Your task to perform on an android device: See recent photos Image 0: 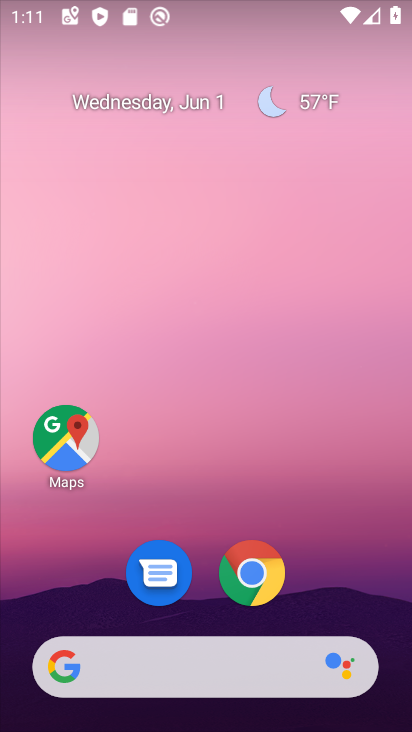
Step 0: drag from (192, 624) to (244, 190)
Your task to perform on an android device: See recent photos Image 1: 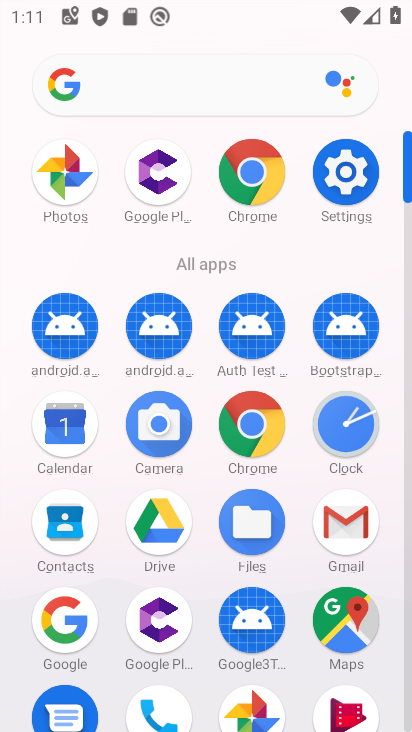
Step 1: drag from (196, 671) to (210, 190)
Your task to perform on an android device: See recent photos Image 2: 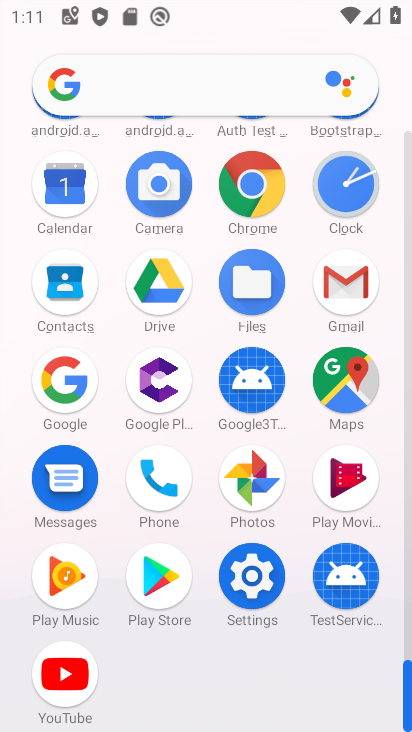
Step 2: click (260, 467)
Your task to perform on an android device: See recent photos Image 3: 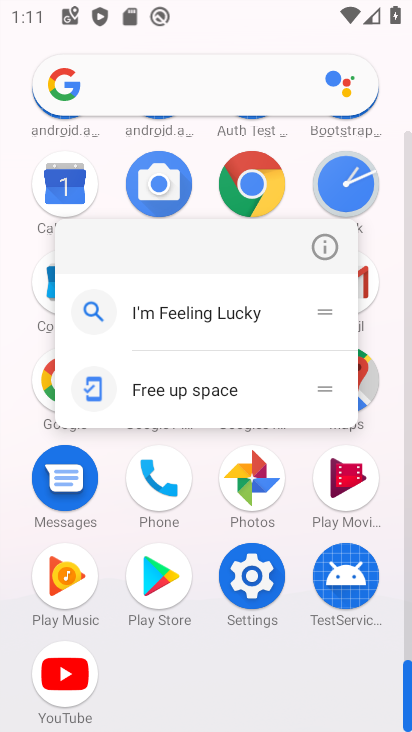
Step 3: click (334, 242)
Your task to perform on an android device: See recent photos Image 4: 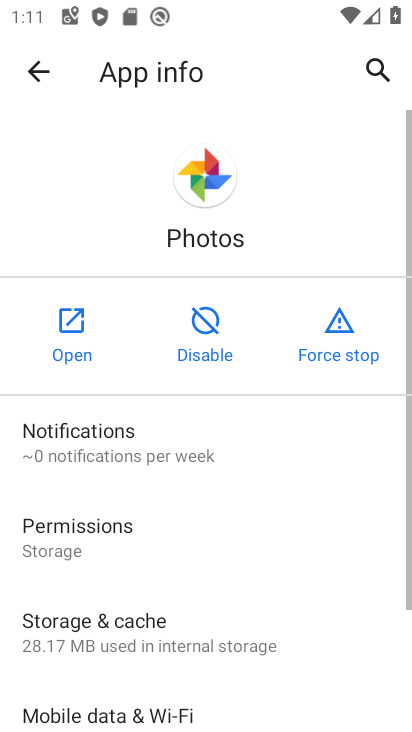
Step 4: click (47, 347)
Your task to perform on an android device: See recent photos Image 5: 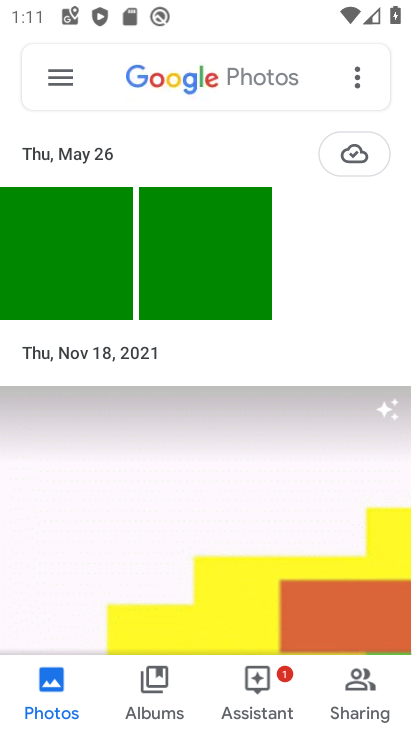
Step 5: drag from (189, 573) to (233, 0)
Your task to perform on an android device: See recent photos Image 6: 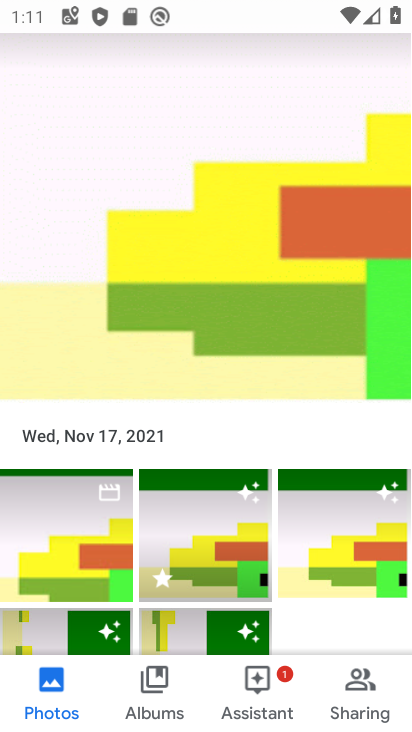
Step 6: drag from (233, 458) to (199, 139)
Your task to perform on an android device: See recent photos Image 7: 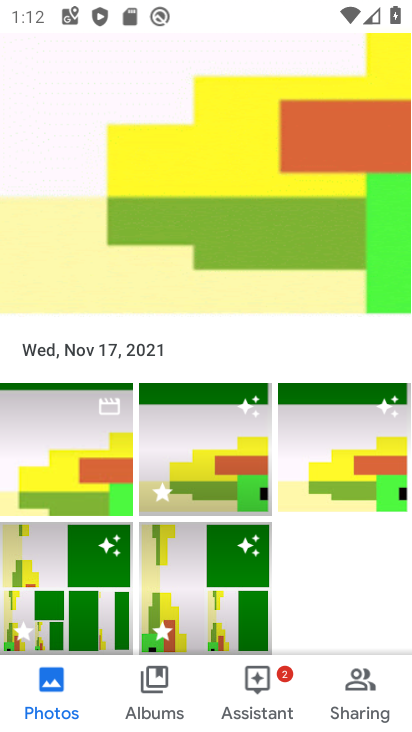
Step 7: click (77, 427)
Your task to perform on an android device: See recent photos Image 8: 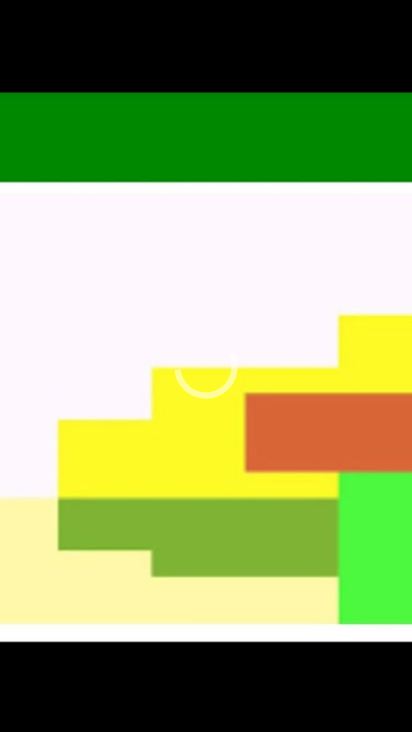
Step 8: task complete